Your task to perform on an android device: empty trash in the gmail app Image 0: 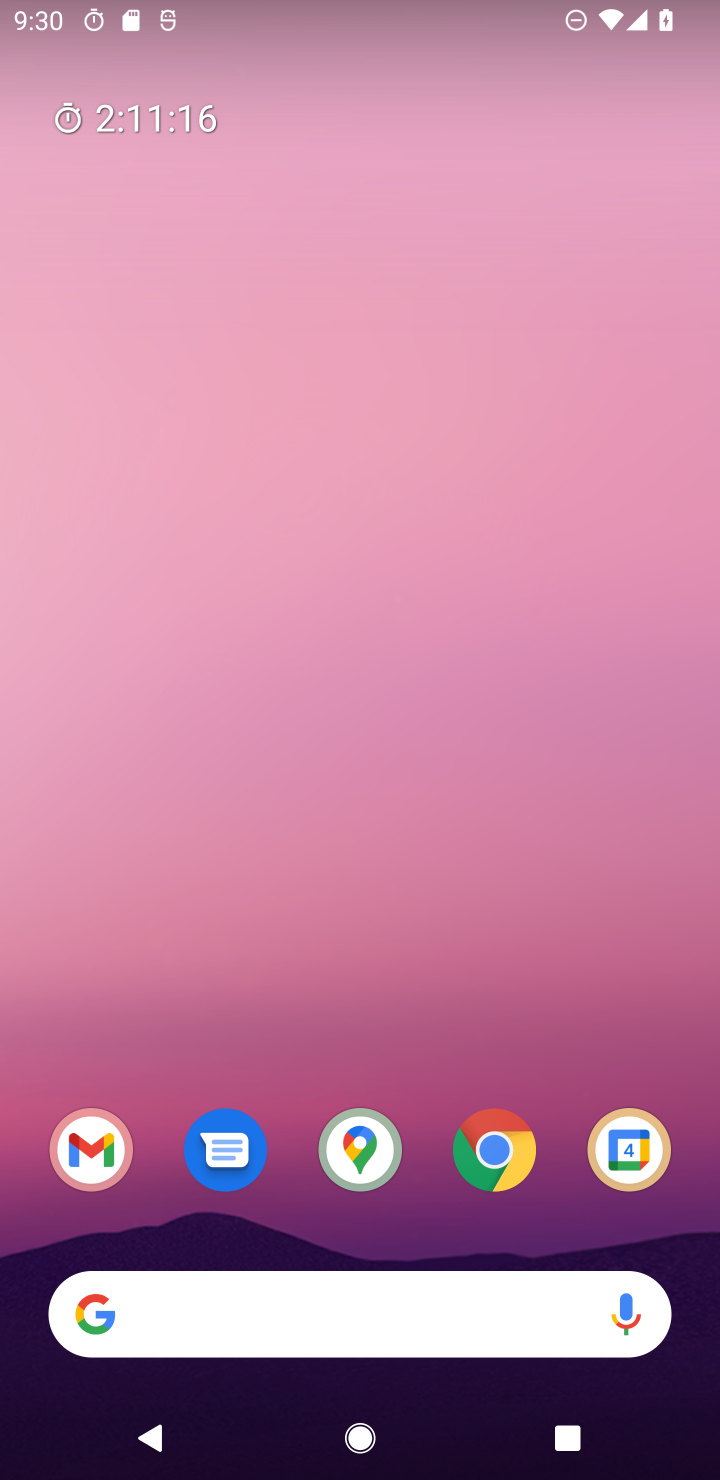
Step 0: drag from (453, 1086) to (512, 62)
Your task to perform on an android device: empty trash in the gmail app Image 1: 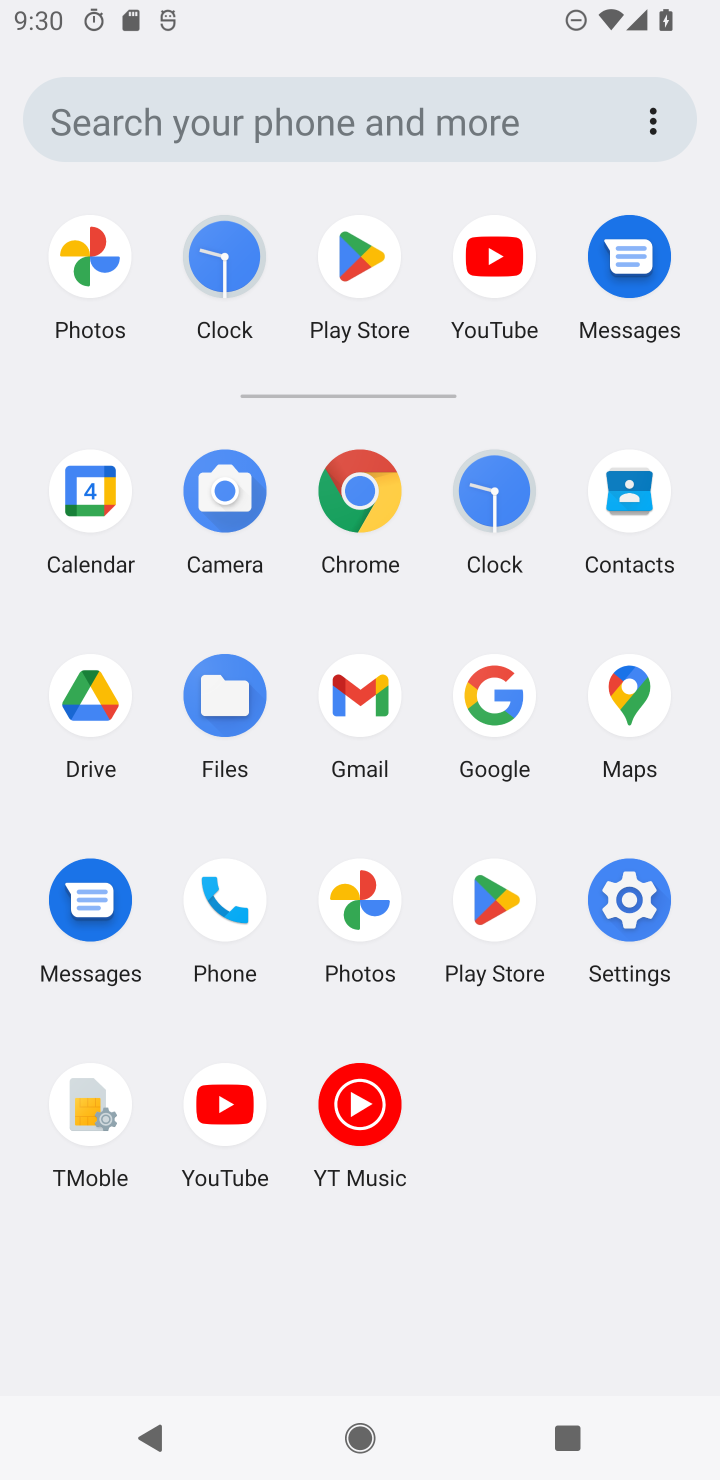
Step 1: click (357, 701)
Your task to perform on an android device: empty trash in the gmail app Image 2: 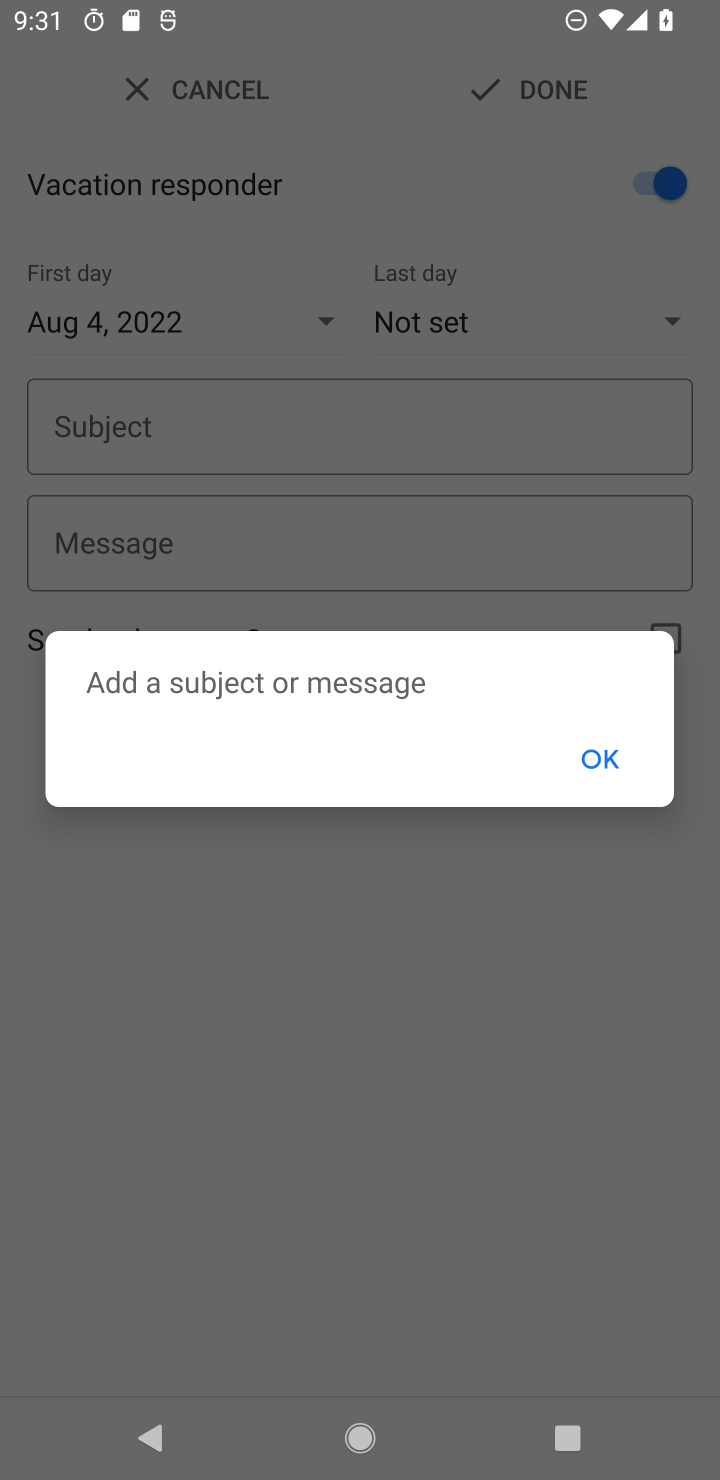
Step 2: press home button
Your task to perform on an android device: empty trash in the gmail app Image 3: 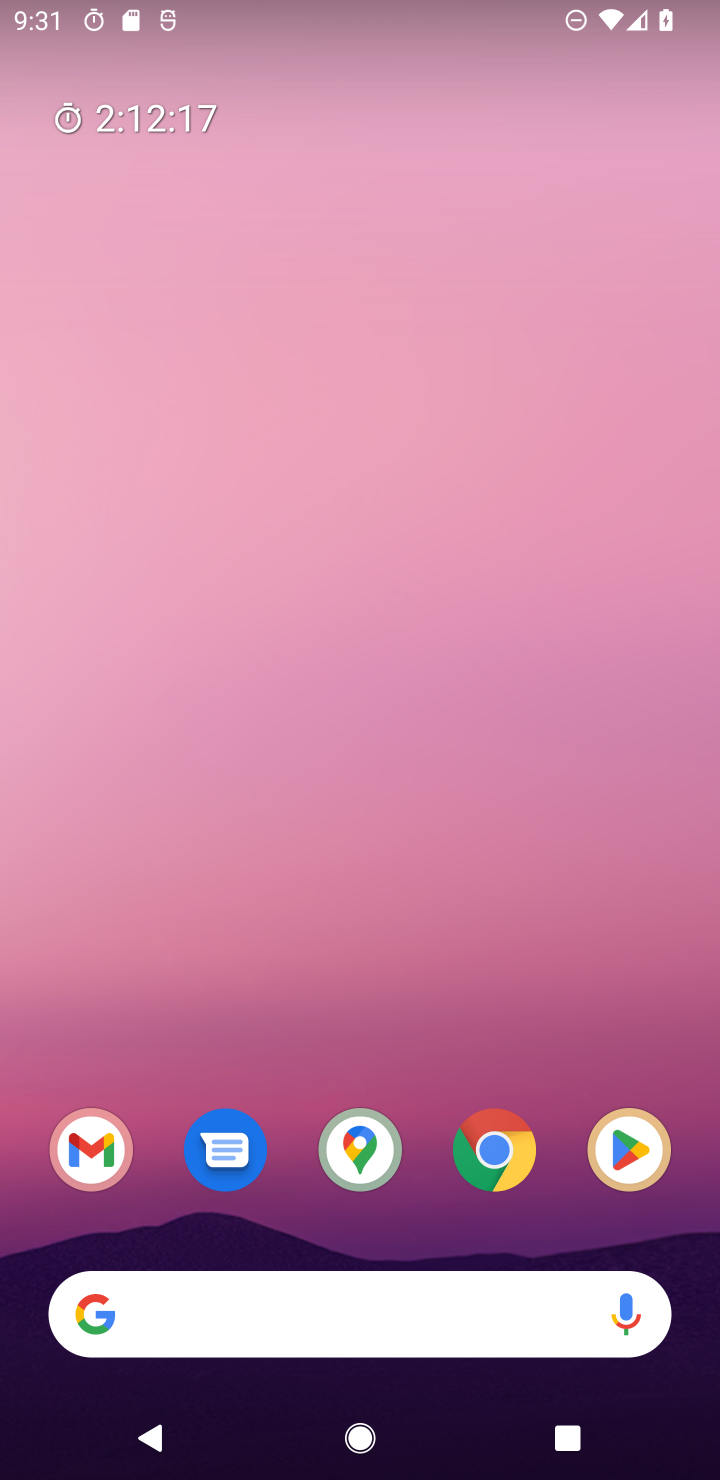
Step 3: drag from (470, 1339) to (610, 78)
Your task to perform on an android device: empty trash in the gmail app Image 4: 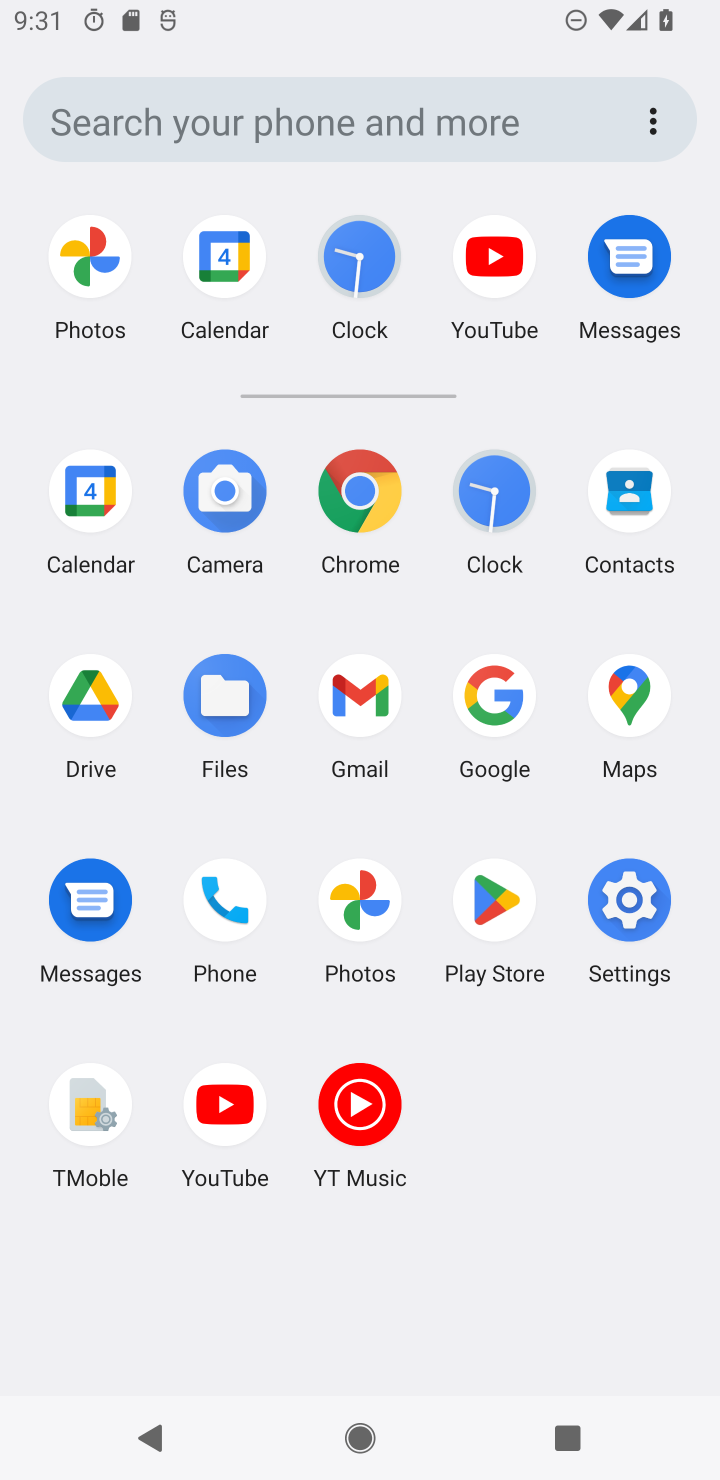
Step 4: click (364, 720)
Your task to perform on an android device: empty trash in the gmail app Image 5: 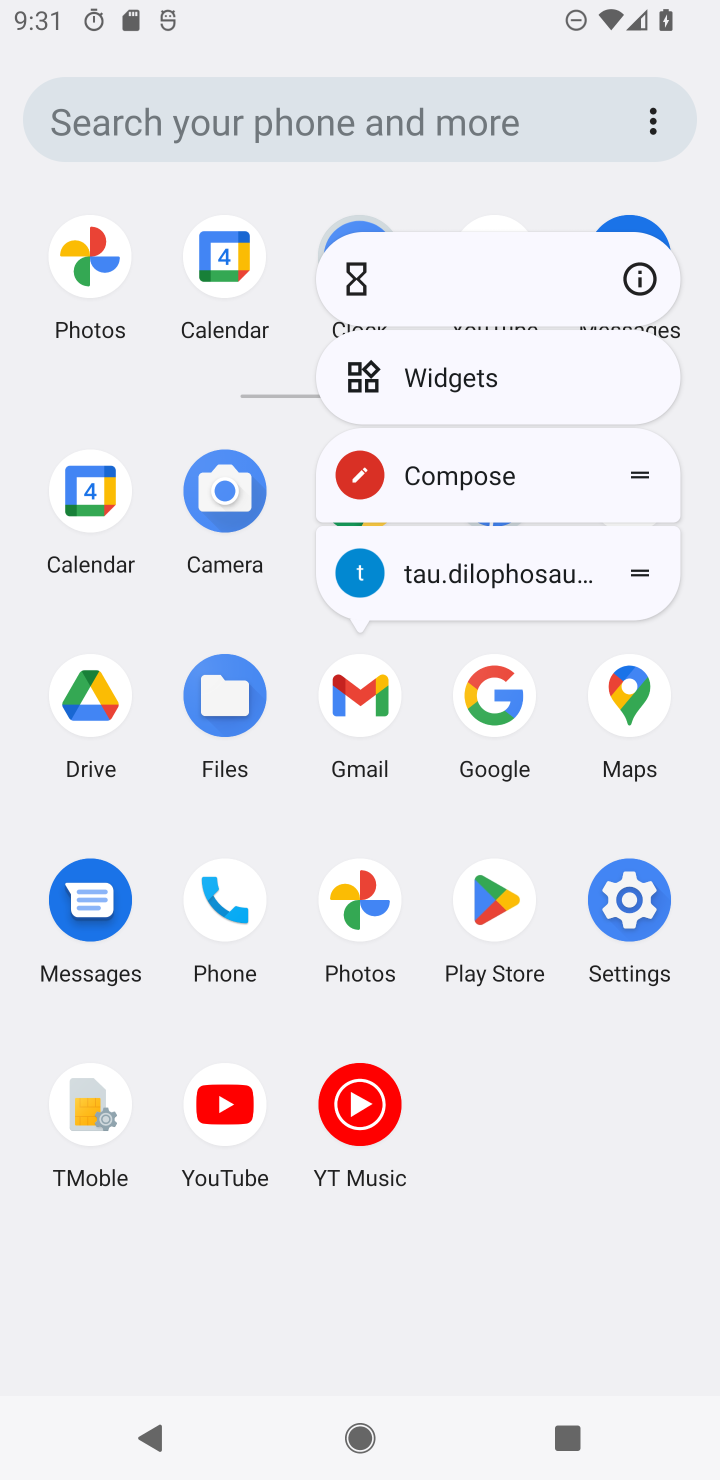
Step 5: click (349, 705)
Your task to perform on an android device: empty trash in the gmail app Image 6: 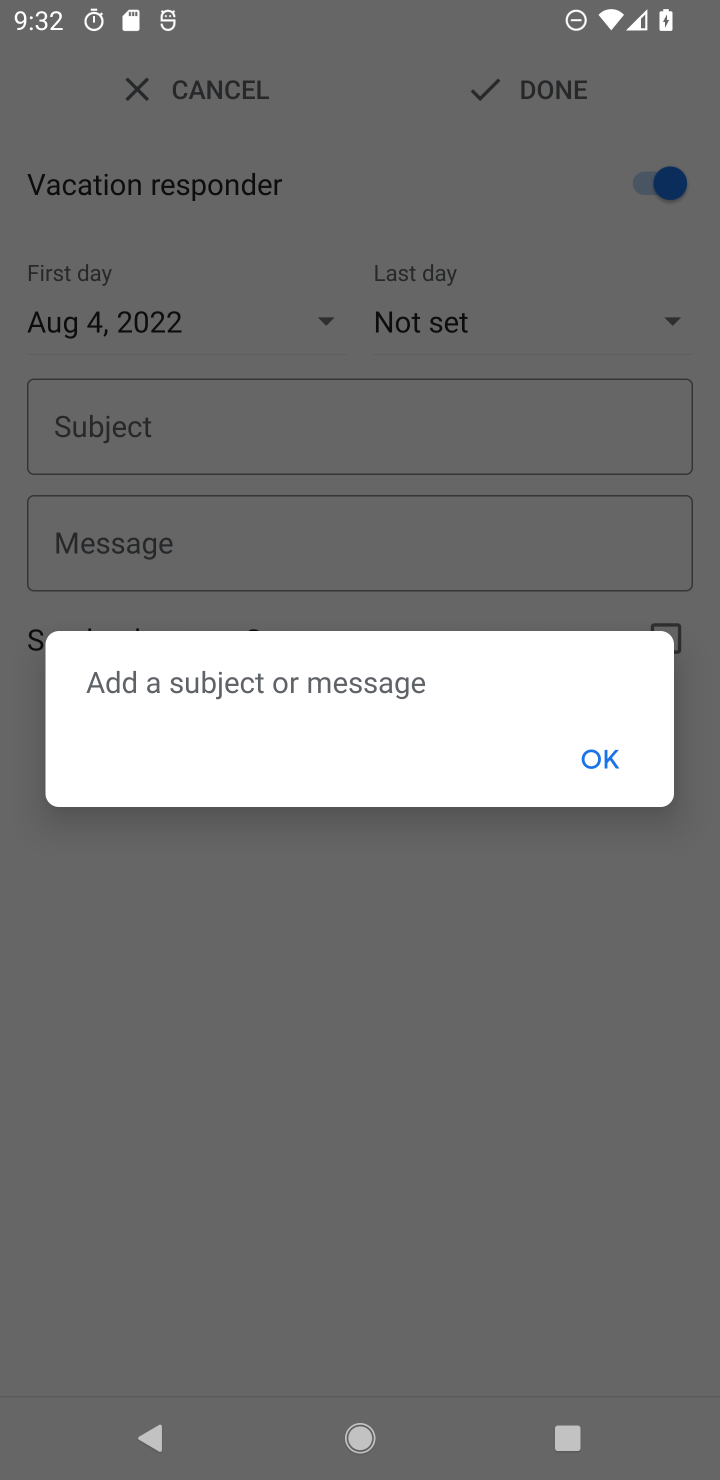
Step 6: click (607, 749)
Your task to perform on an android device: empty trash in the gmail app Image 7: 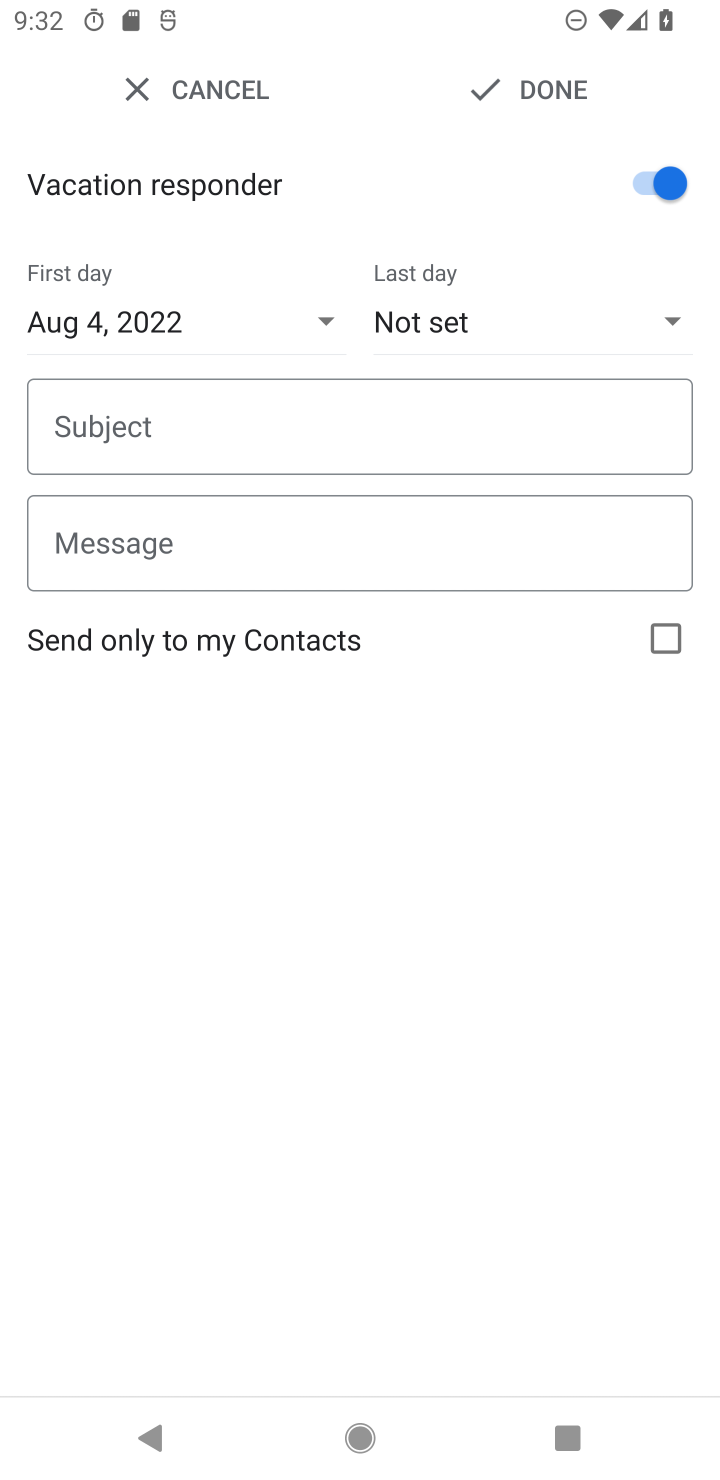
Step 7: press back button
Your task to perform on an android device: empty trash in the gmail app Image 8: 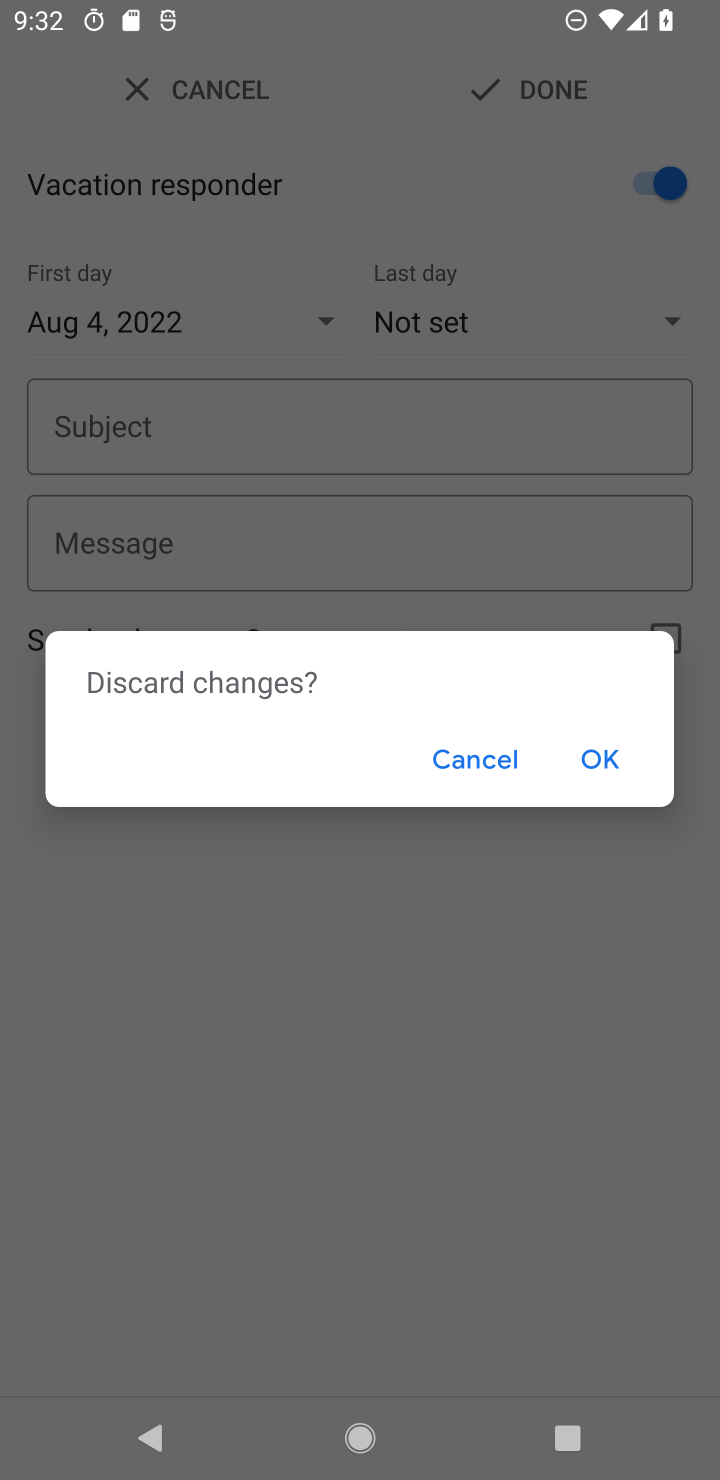
Step 8: click (594, 741)
Your task to perform on an android device: empty trash in the gmail app Image 9: 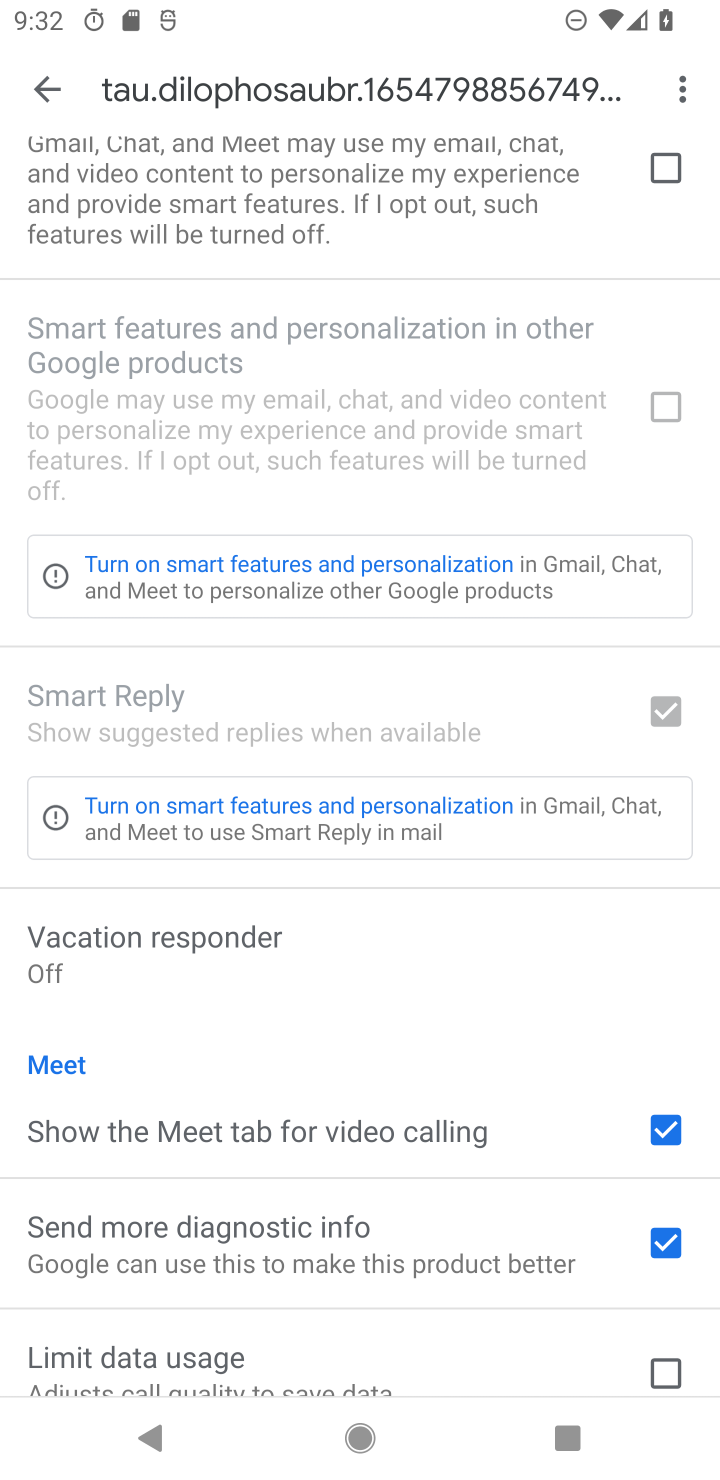
Step 9: press back button
Your task to perform on an android device: empty trash in the gmail app Image 10: 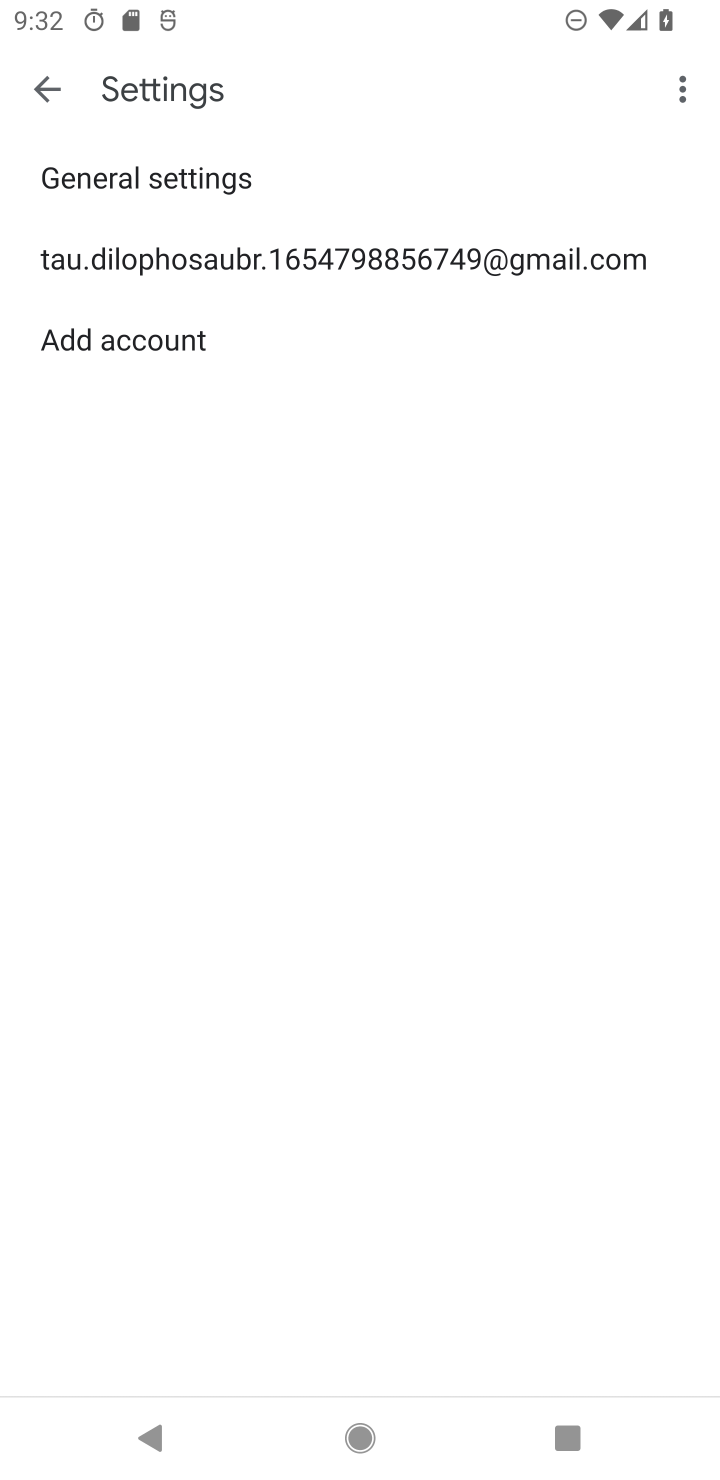
Step 10: press back button
Your task to perform on an android device: empty trash in the gmail app Image 11: 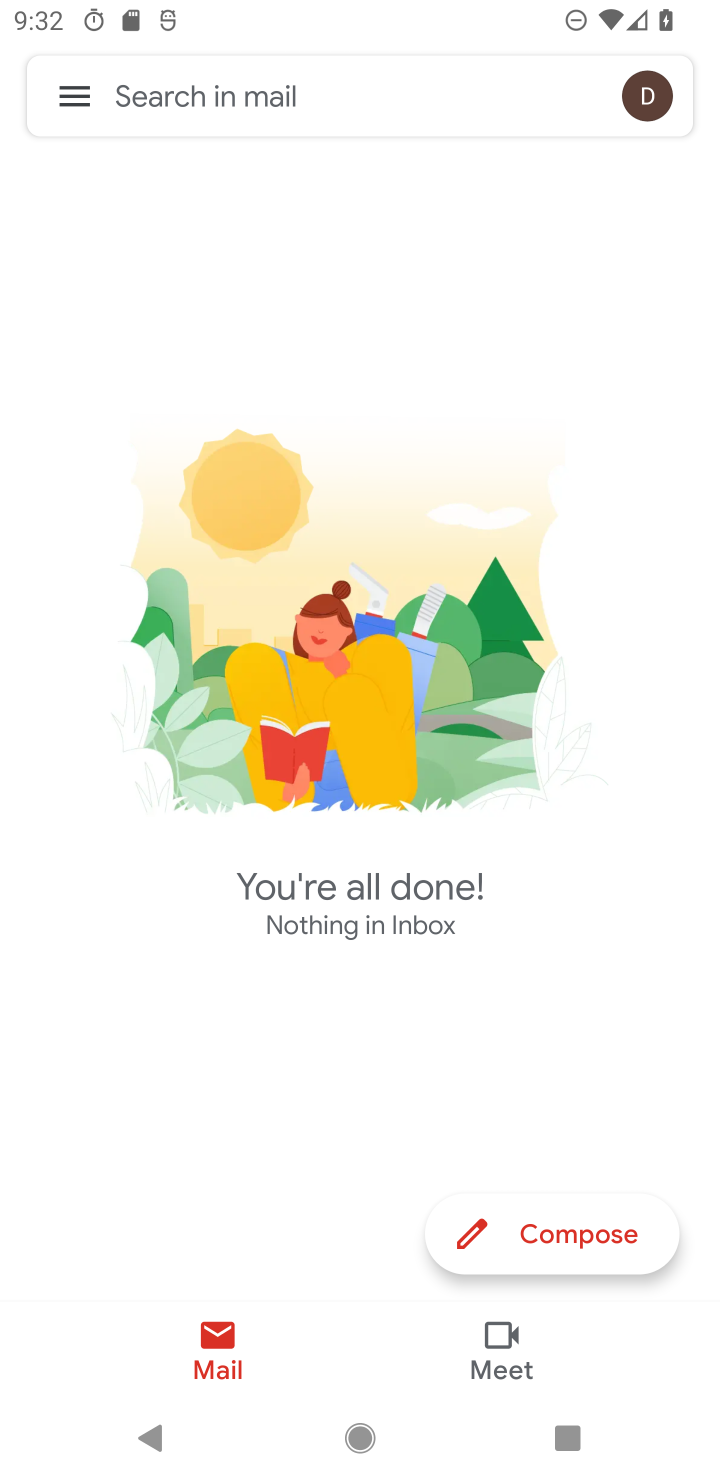
Step 11: click (75, 98)
Your task to perform on an android device: empty trash in the gmail app Image 12: 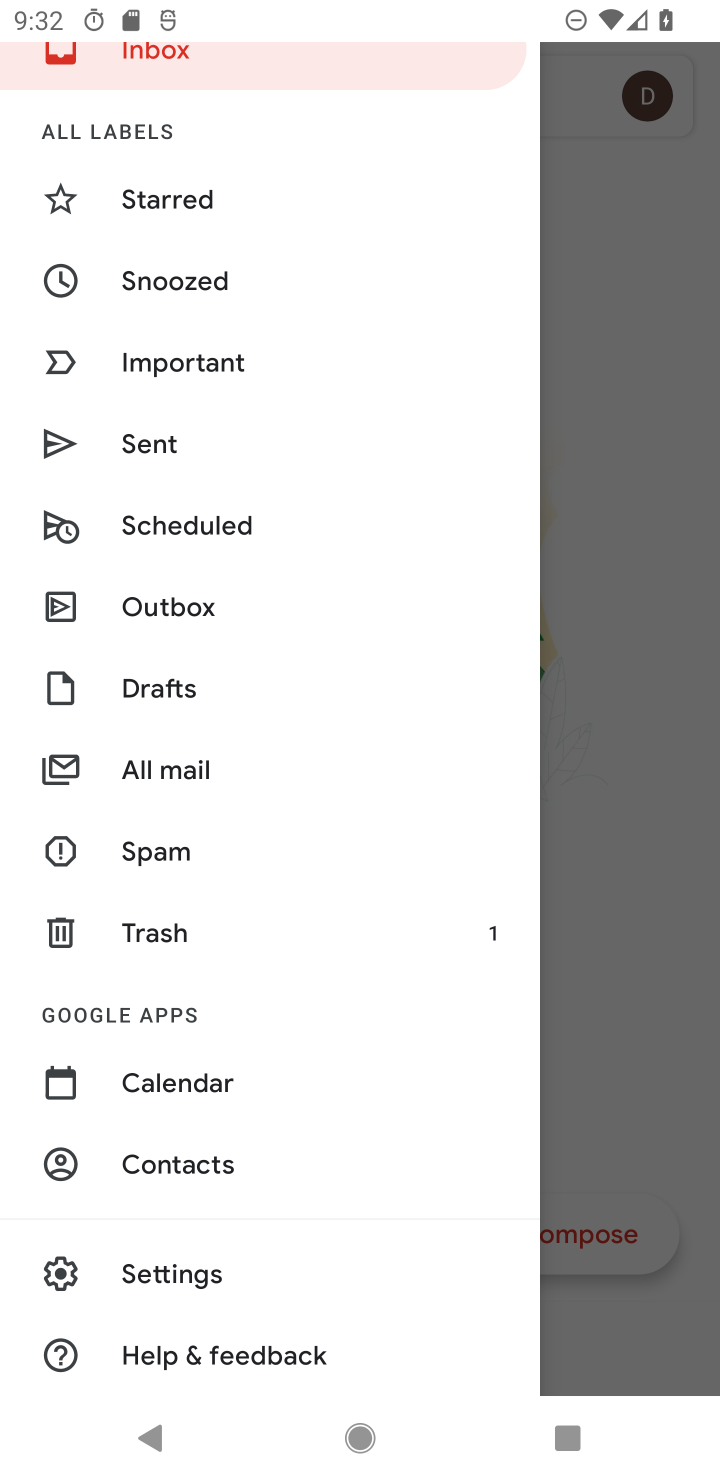
Step 12: click (151, 920)
Your task to perform on an android device: empty trash in the gmail app Image 13: 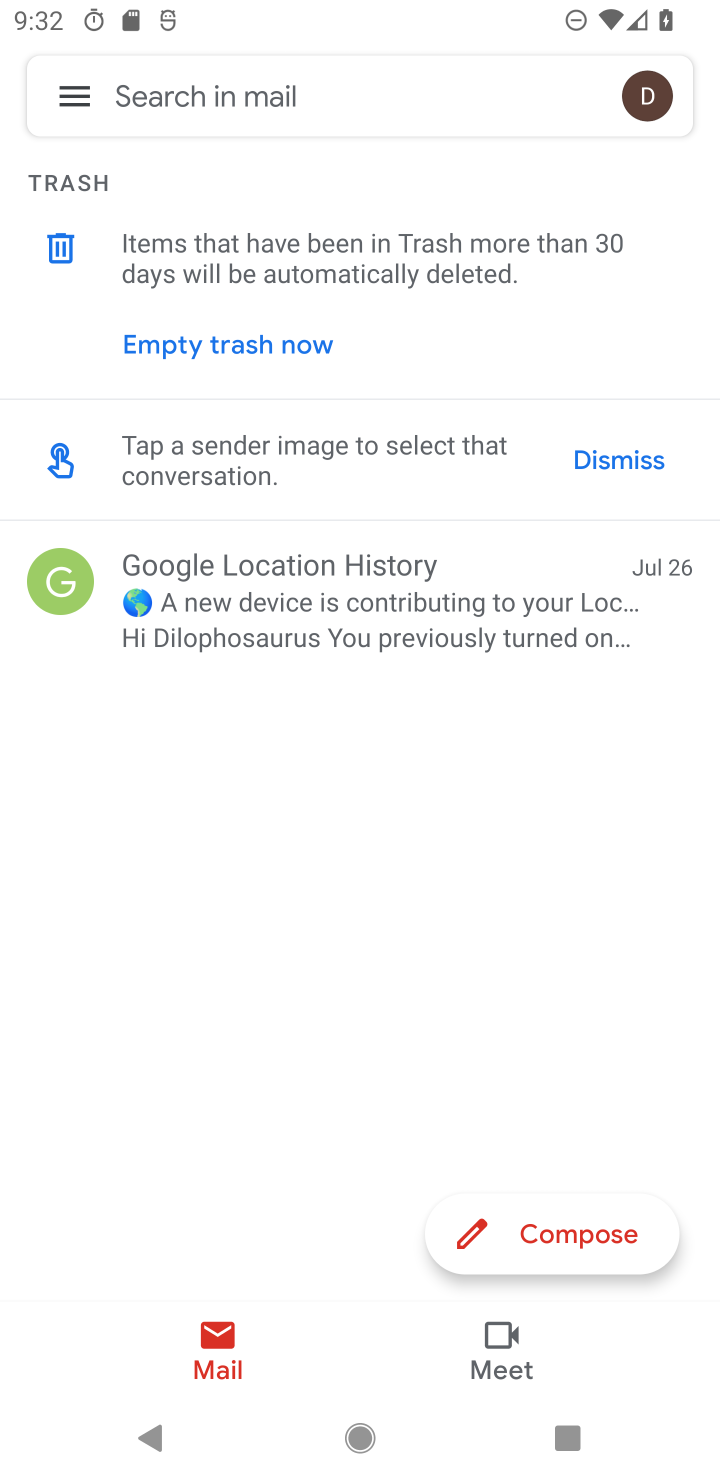
Step 13: click (56, 241)
Your task to perform on an android device: empty trash in the gmail app Image 14: 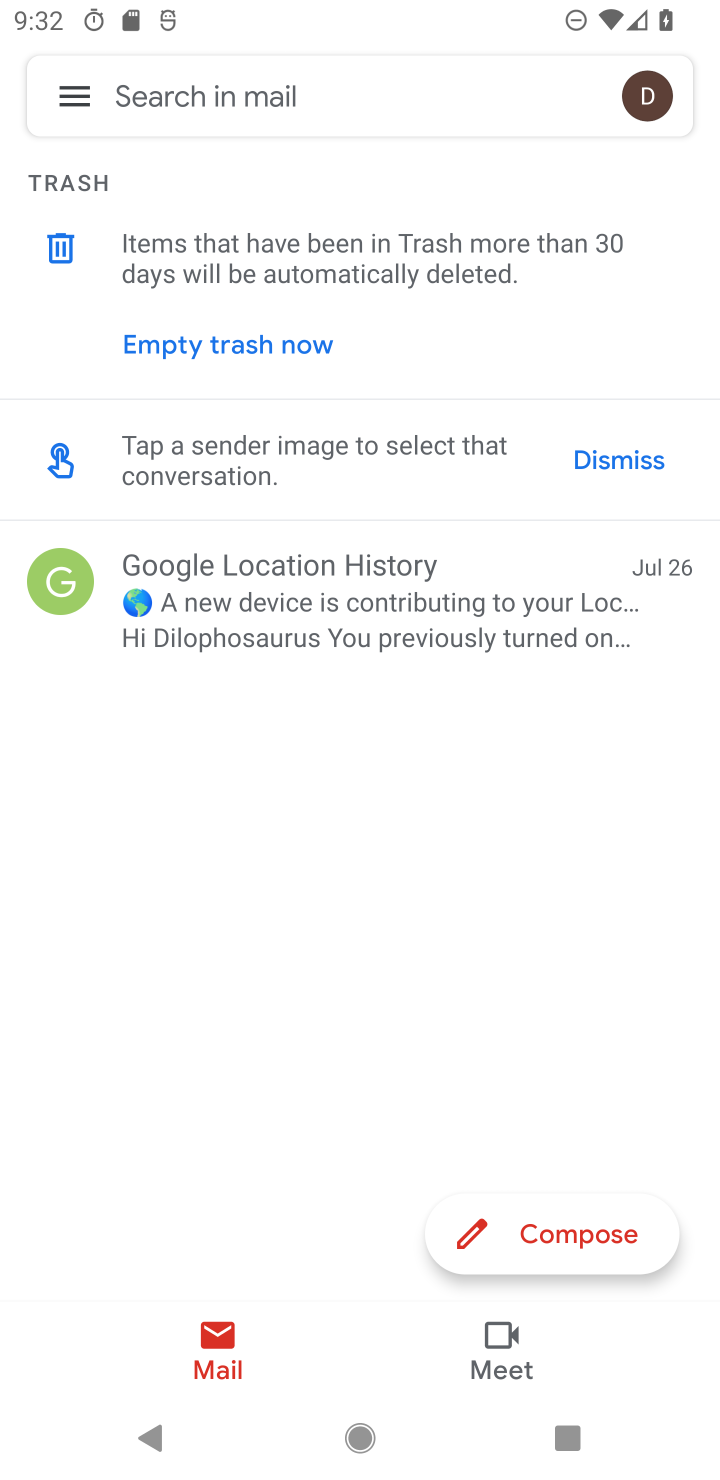
Step 14: click (186, 341)
Your task to perform on an android device: empty trash in the gmail app Image 15: 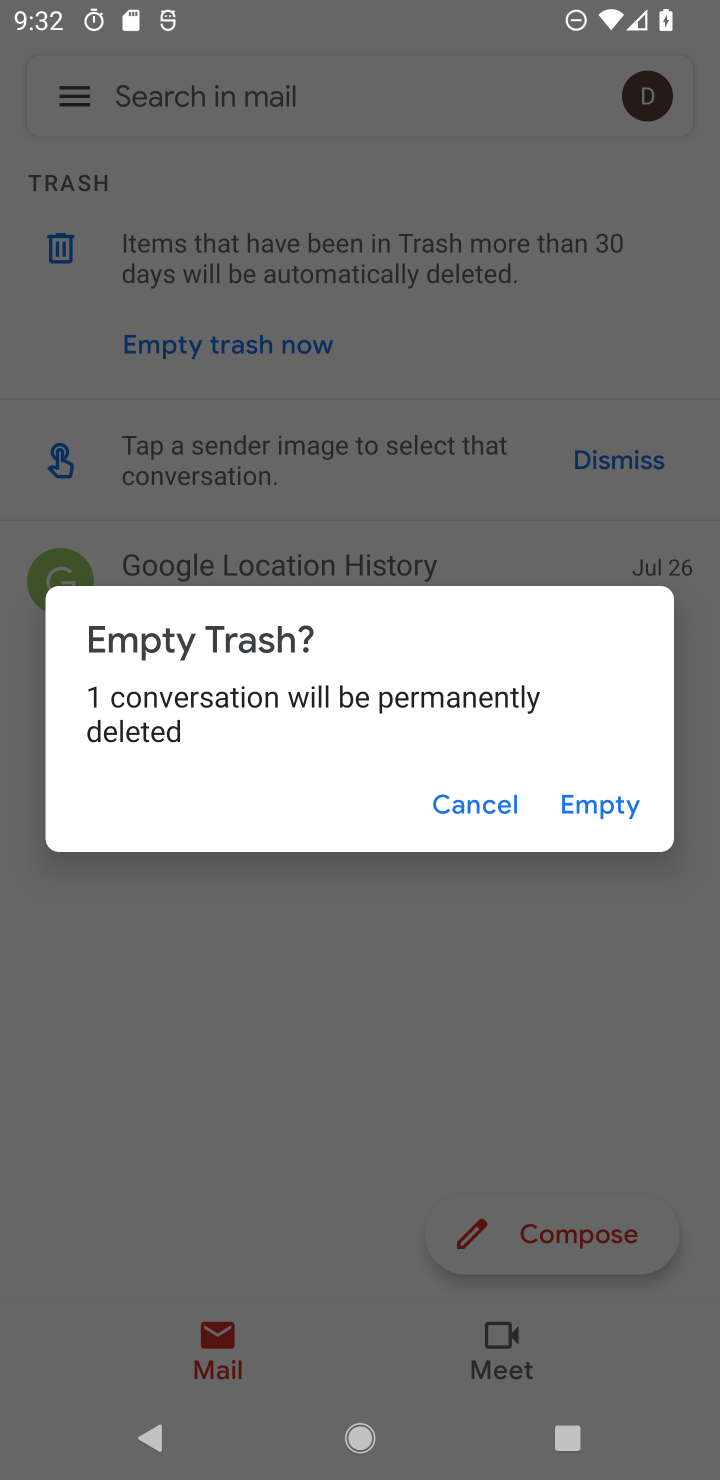
Step 15: click (594, 798)
Your task to perform on an android device: empty trash in the gmail app Image 16: 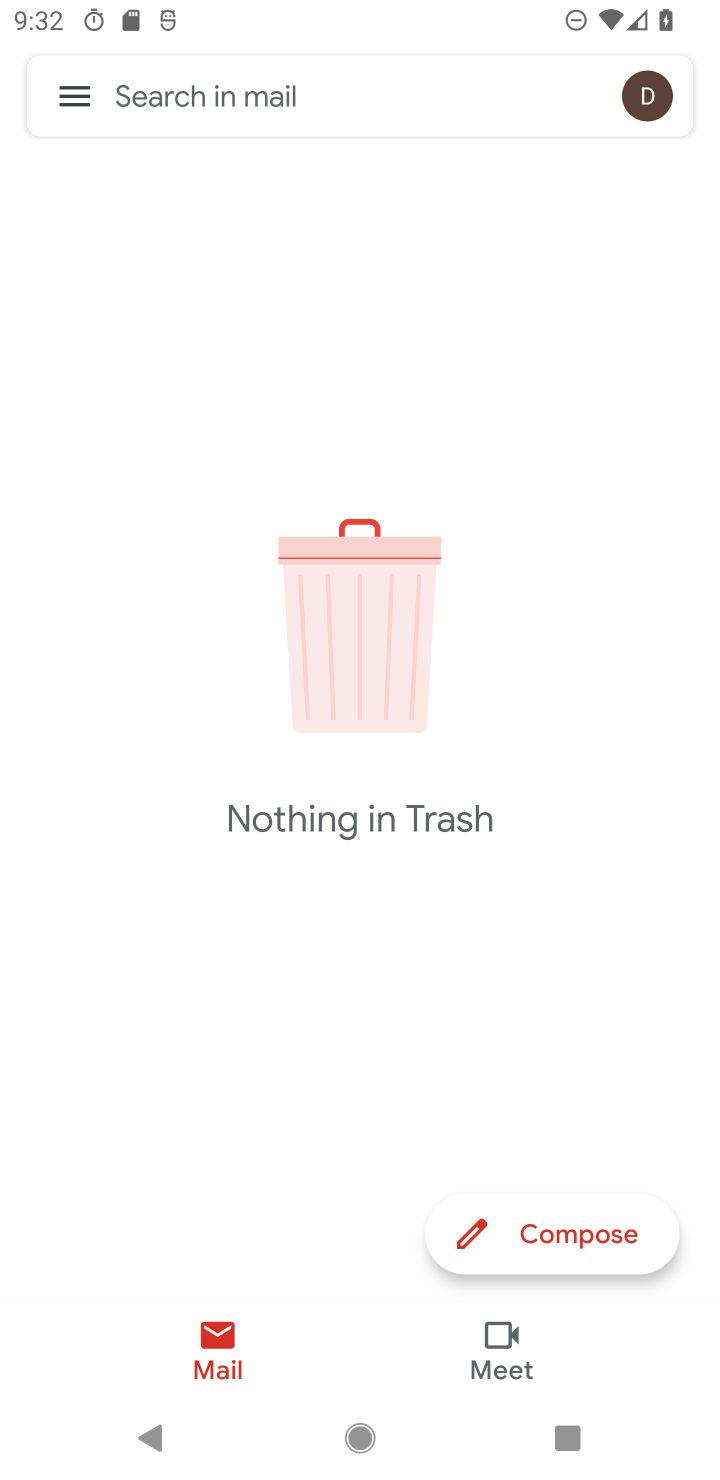
Step 16: task complete